Your task to perform on an android device: Go to Yahoo.com Image 0: 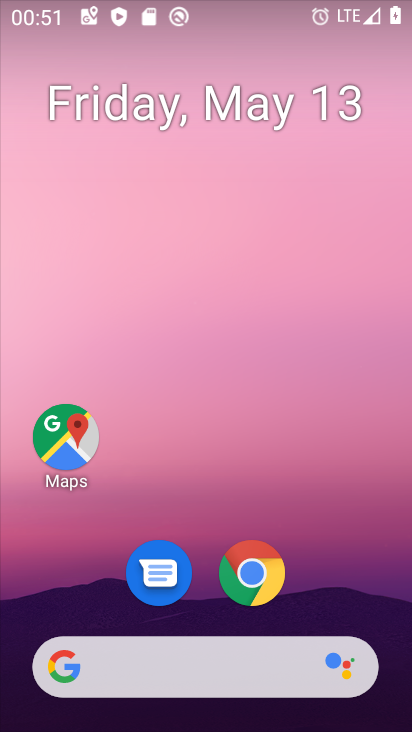
Step 0: click (194, 665)
Your task to perform on an android device: Go to Yahoo.com Image 1: 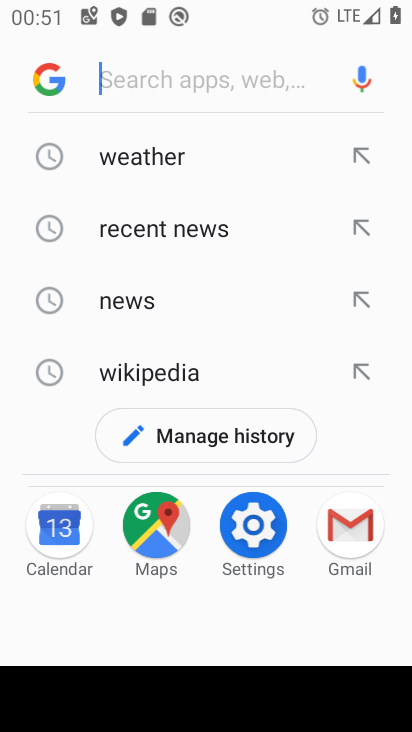
Step 1: type "yahoo.com"
Your task to perform on an android device: Go to Yahoo.com Image 2: 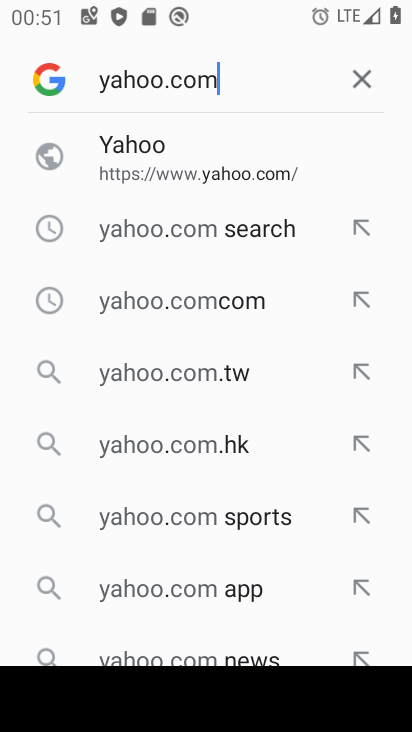
Step 2: click (221, 179)
Your task to perform on an android device: Go to Yahoo.com Image 3: 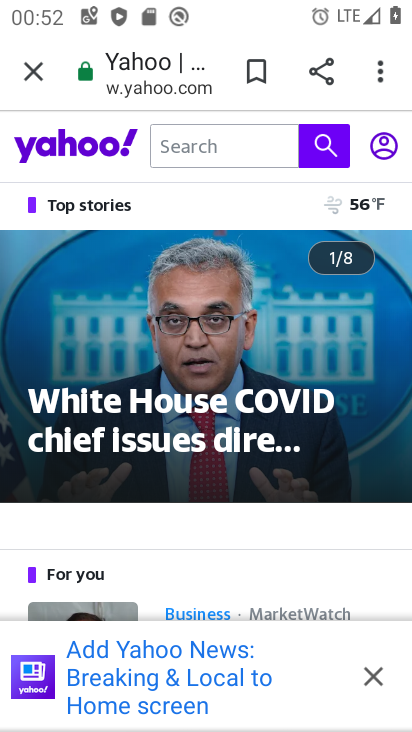
Step 3: task complete